Your task to perform on an android device: Open sound settings Image 0: 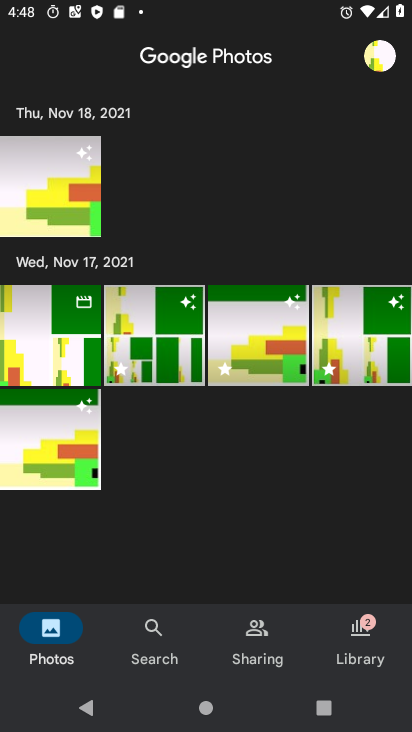
Step 0: press home button
Your task to perform on an android device: Open sound settings Image 1: 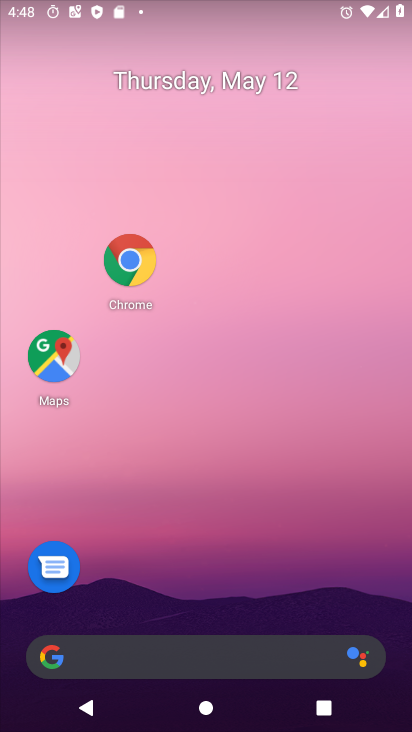
Step 1: drag from (255, 631) to (249, 209)
Your task to perform on an android device: Open sound settings Image 2: 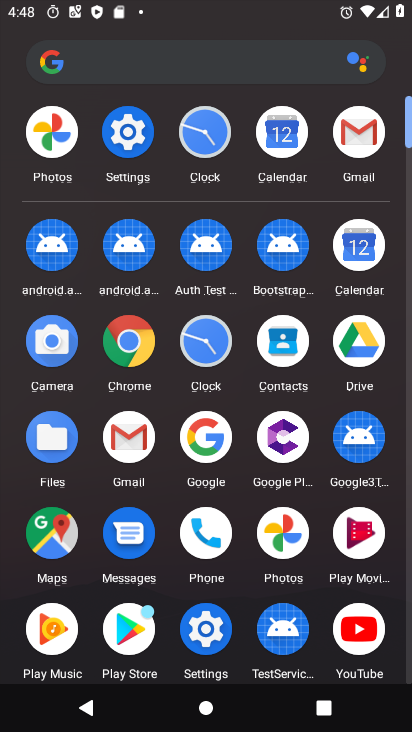
Step 2: click (129, 141)
Your task to perform on an android device: Open sound settings Image 3: 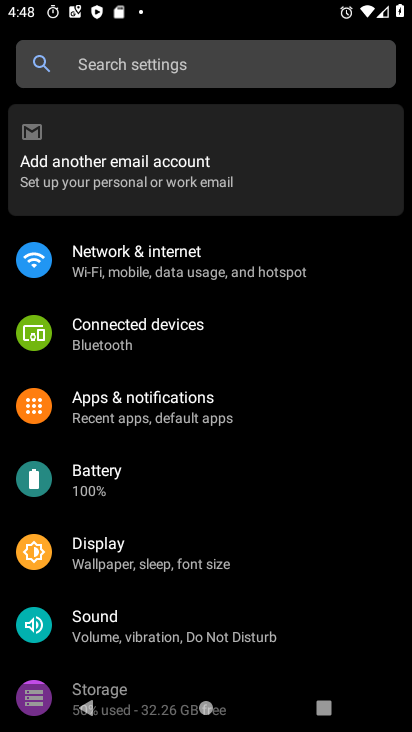
Step 3: click (126, 631)
Your task to perform on an android device: Open sound settings Image 4: 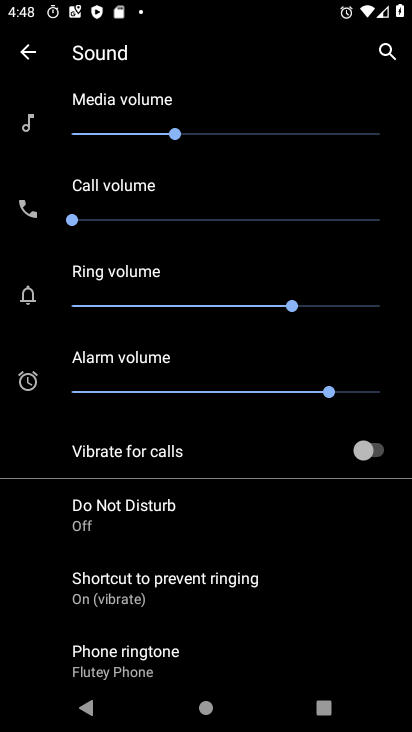
Step 4: drag from (165, 680) to (181, 216)
Your task to perform on an android device: Open sound settings Image 5: 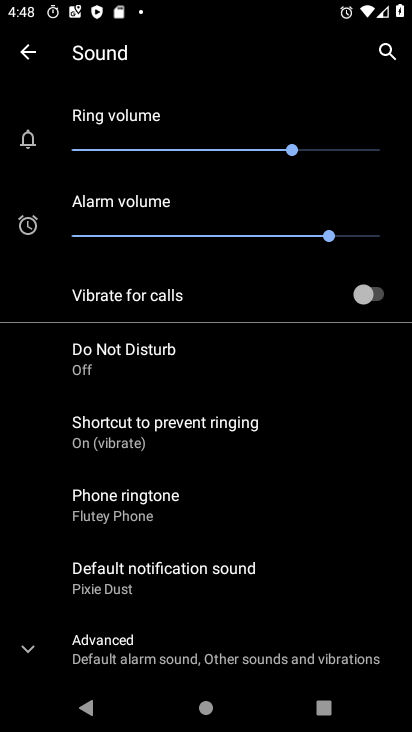
Step 5: drag from (230, 657) to (232, 296)
Your task to perform on an android device: Open sound settings Image 6: 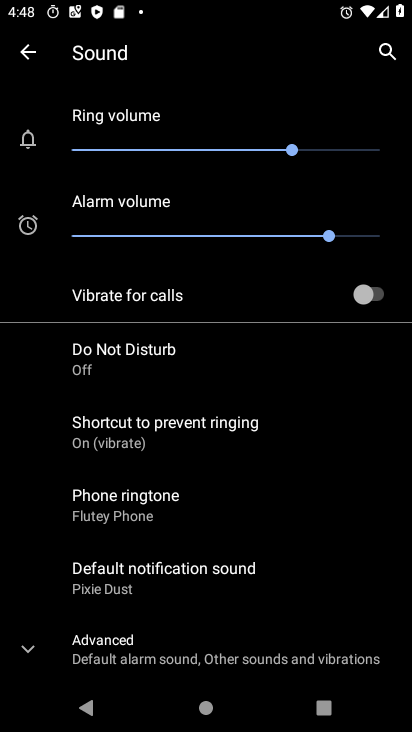
Step 6: click (172, 647)
Your task to perform on an android device: Open sound settings Image 7: 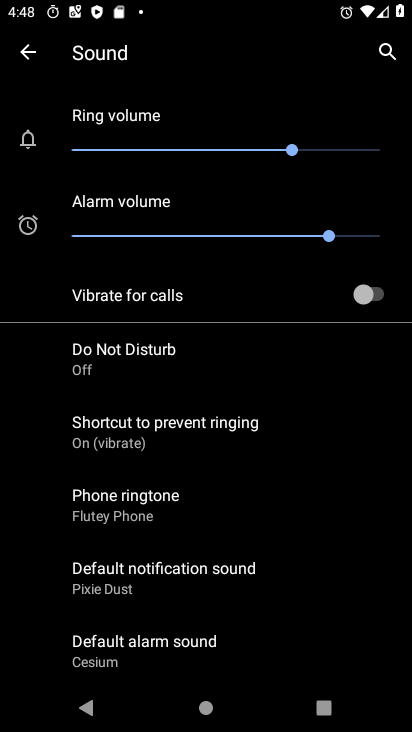
Step 7: task complete